Your task to perform on an android device: change the clock style Image 0: 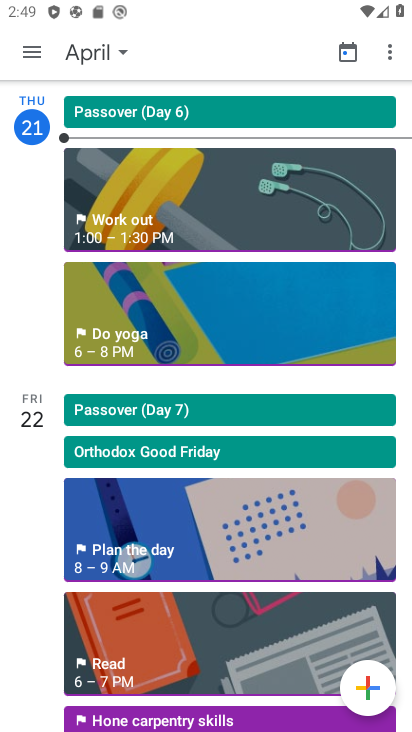
Step 0: press home button
Your task to perform on an android device: change the clock style Image 1: 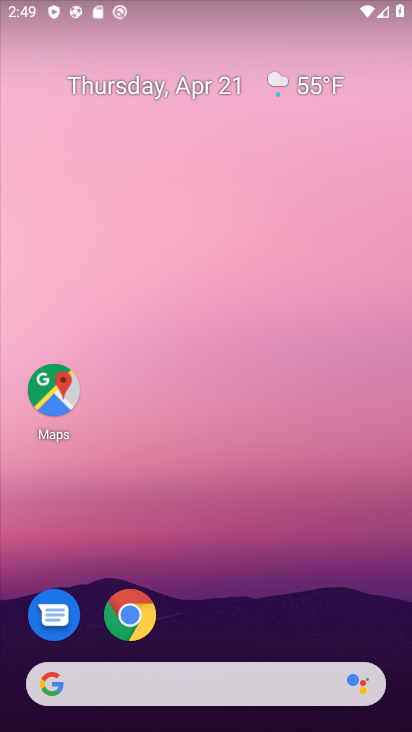
Step 1: drag from (231, 628) to (291, 173)
Your task to perform on an android device: change the clock style Image 2: 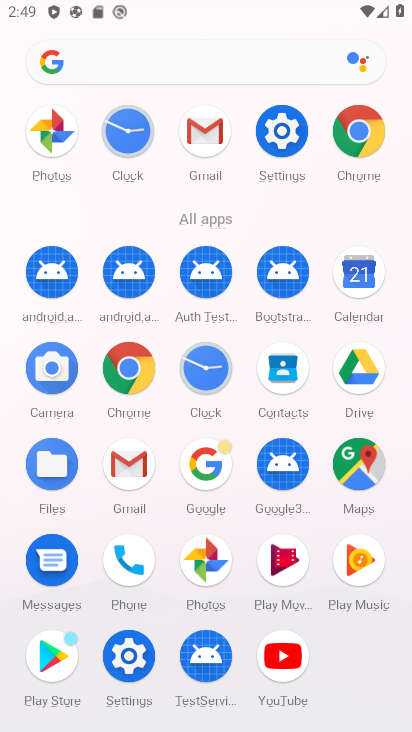
Step 2: click (205, 358)
Your task to perform on an android device: change the clock style Image 3: 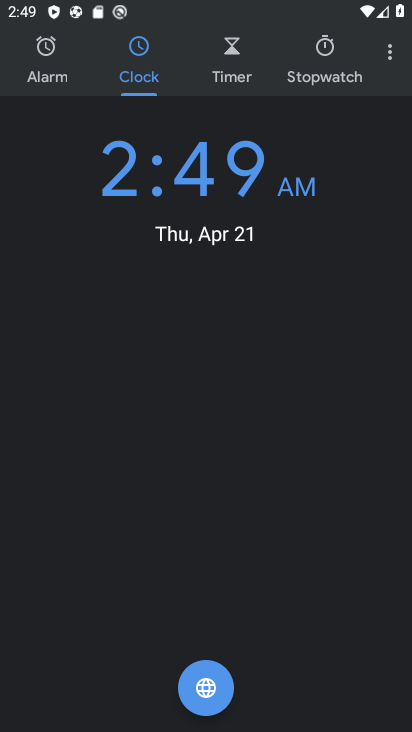
Step 3: click (390, 57)
Your task to perform on an android device: change the clock style Image 4: 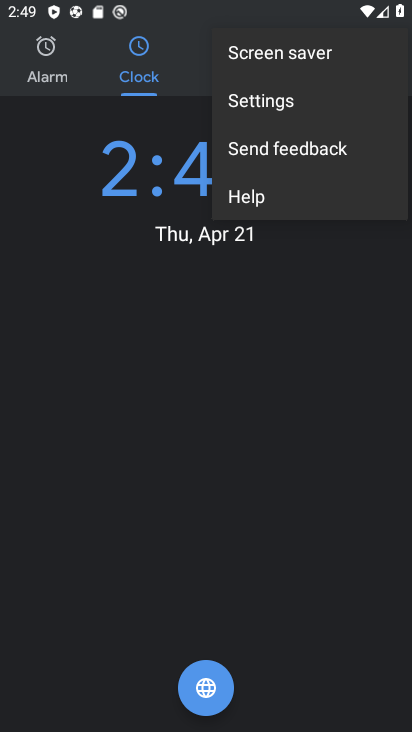
Step 4: click (241, 100)
Your task to perform on an android device: change the clock style Image 5: 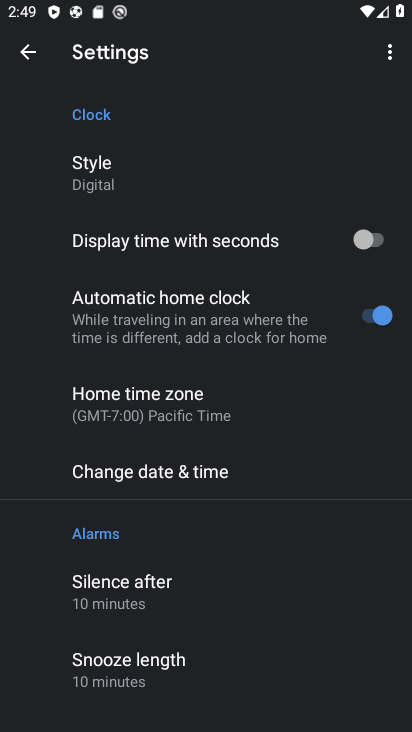
Step 5: click (103, 172)
Your task to perform on an android device: change the clock style Image 6: 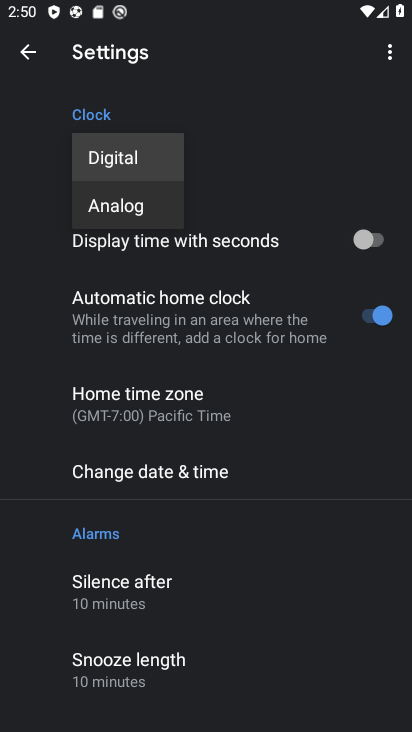
Step 6: click (142, 212)
Your task to perform on an android device: change the clock style Image 7: 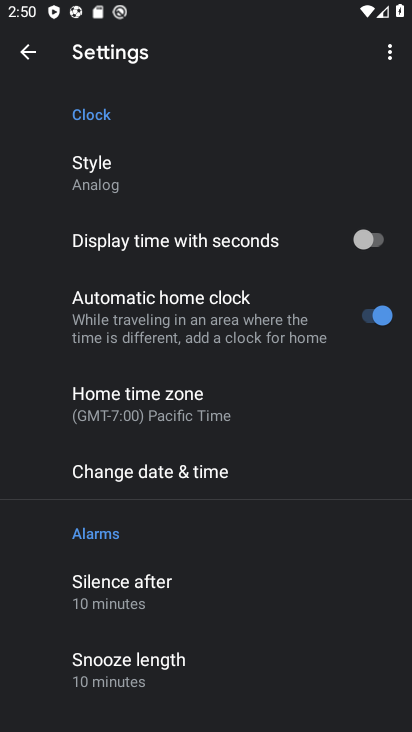
Step 7: task complete